Your task to perform on an android device: open a new tab in the chrome app Image 0: 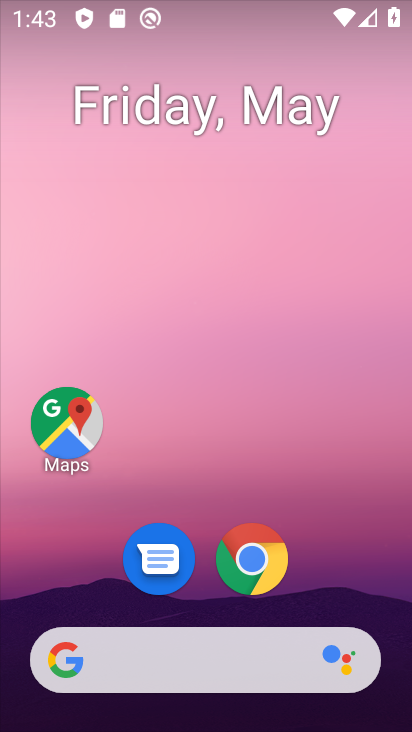
Step 0: click (262, 548)
Your task to perform on an android device: open a new tab in the chrome app Image 1: 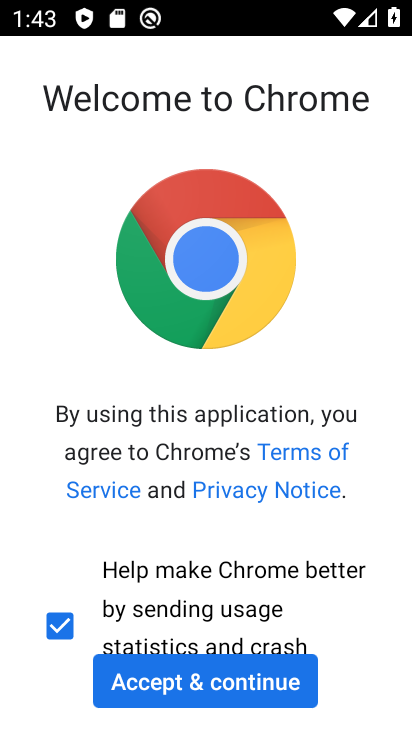
Step 1: click (231, 697)
Your task to perform on an android device: open a new tab in the chrome app Image 2: 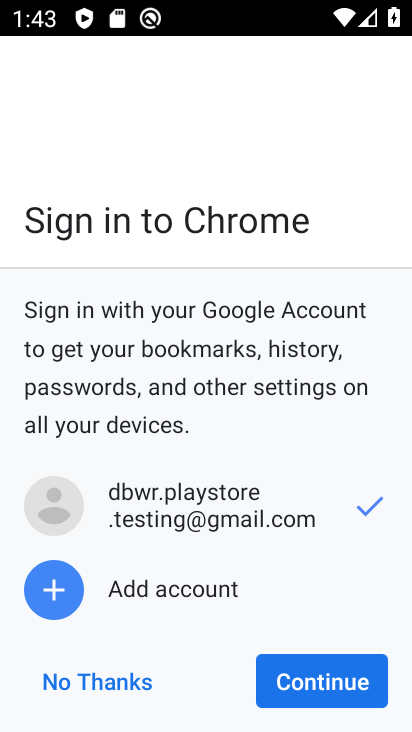
Step 2: click (319, 726)
Your task to perform on an android device: open a new tab in the chrome app Image 3: 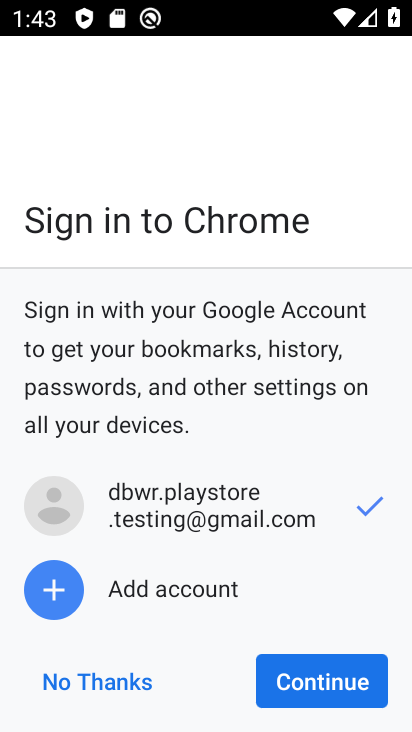
Step 3: click (316, 694)
Your task to perform on an android device: open a new tab in the chrome app Image 4: 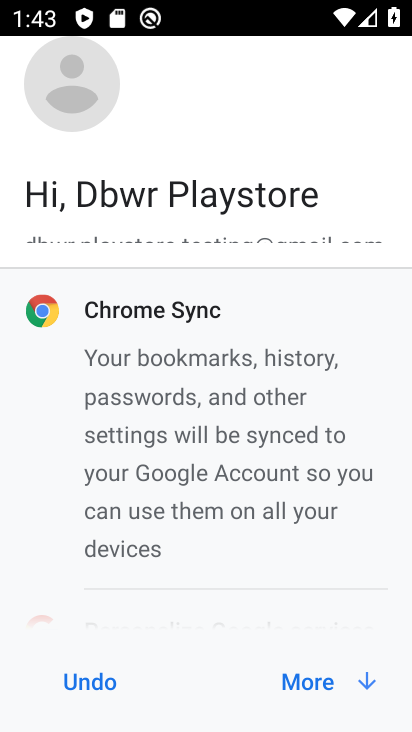
Step 4: click (305, 684)
Your task to perform on an android device: open a new tab in the chrome app Image 5: 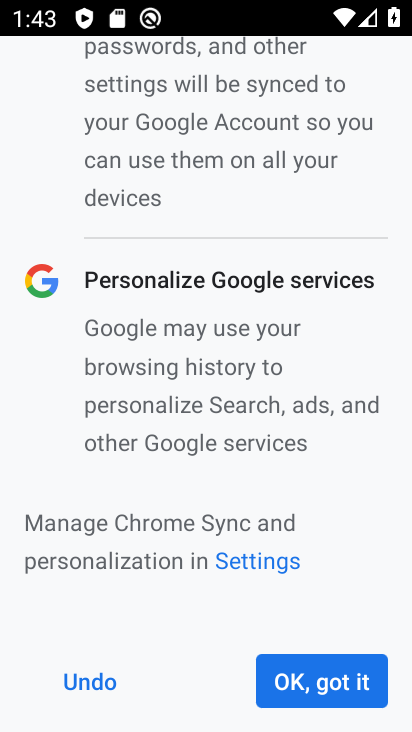
Step 5: click (305, 684)
Your task to perform on an android device: open a new tab in the chrome app Image 6: 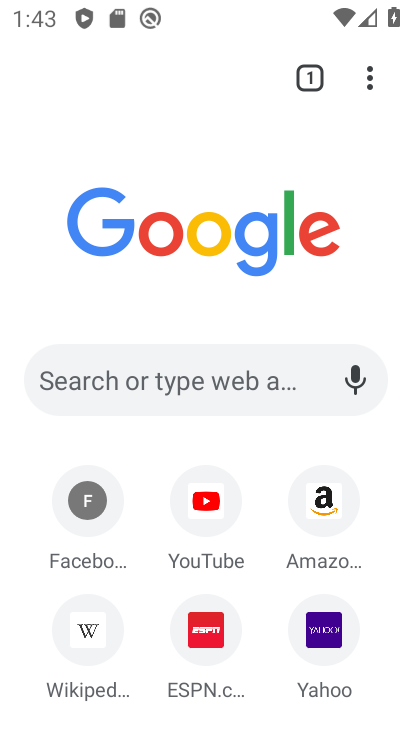
Step 6: task complete